Your task to perform on an android device: change notification settings in the gmail app Image 0: 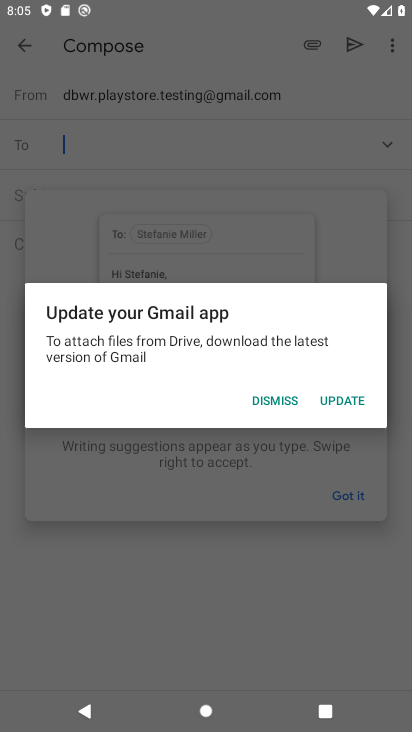
Step 0: press home button
Your task to perform on an android device: change notification settings in the gmail app Image 1: 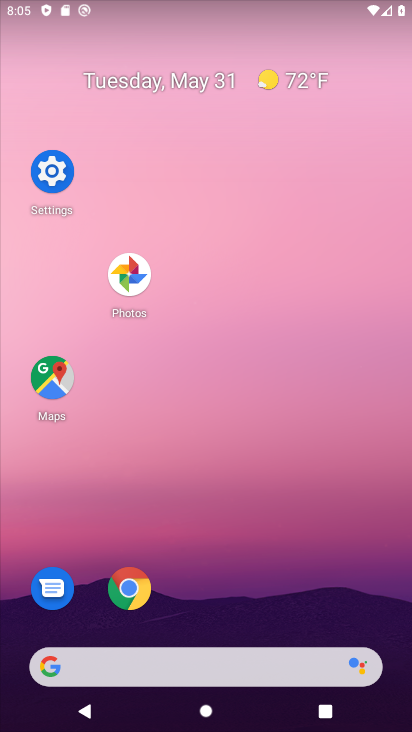
Step 1: drag from (327, 541) to (344, 177)
Your task to perform on an android device: change notification settings in the gmail app Image 2: 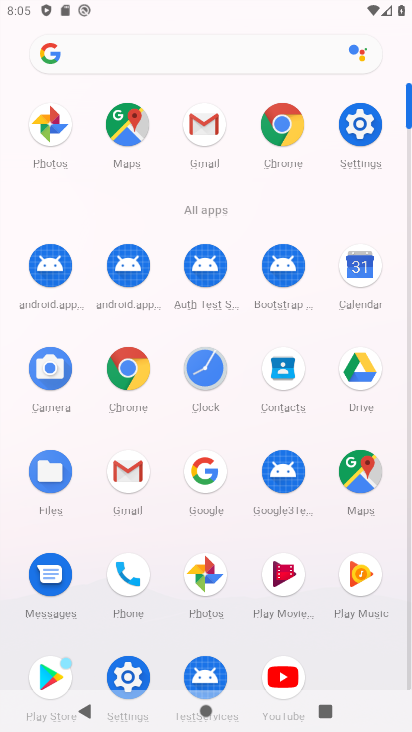
Step 2: drag from (203, 123) to (51, 303)
Your task to perform on an android device: change notification settings in the gmail app Image 3: 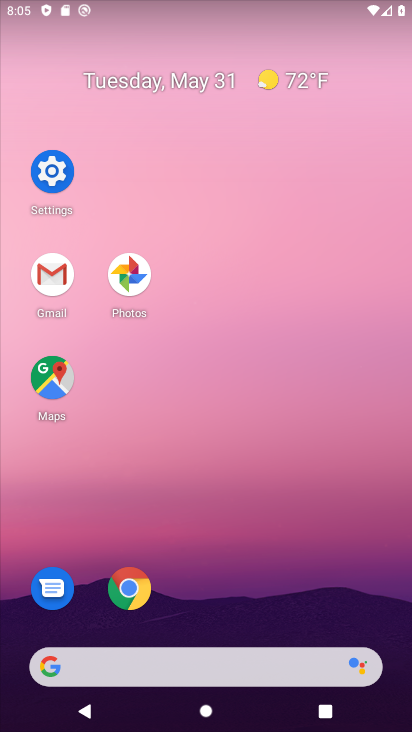
Step 3: click (61, 279)
Your task to perform on an android device: change notification settings in the gmail app Image 4: 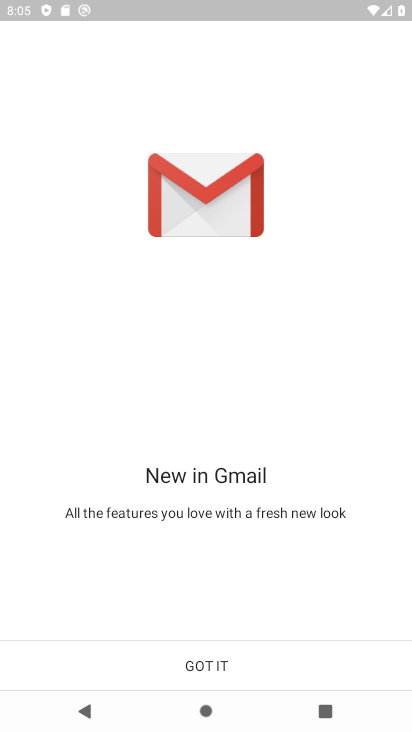
Step 4: click (207, 651)
Your task to perform on an android device: change notification settings in the gmail app Image 5: 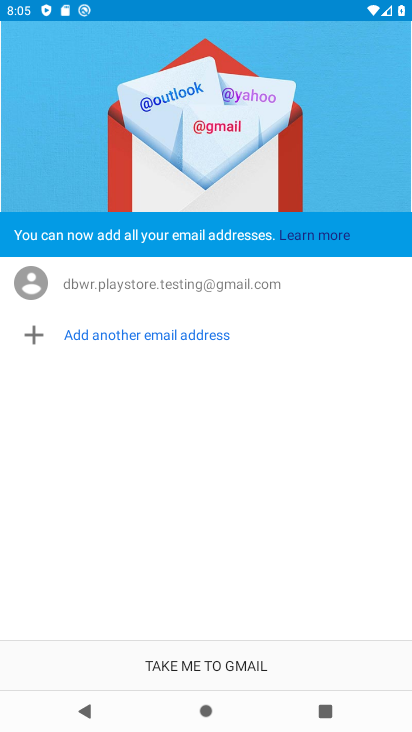
Step 5: click (270, 651)
Your task to perform on an android device: change notification settings in the gmail app Image 6: 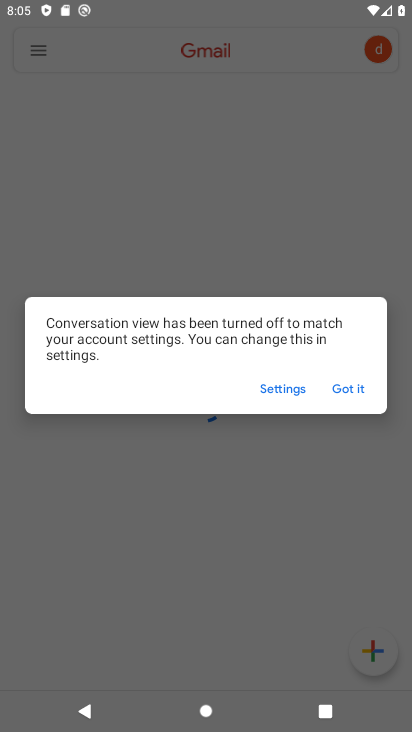
Step 6: click (336, 381)
Your task to perform on an android device: change notification settings in the gmail app Image 7: 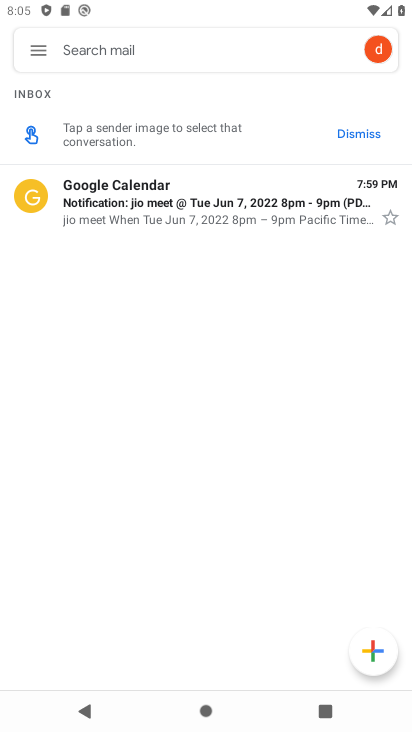
Step 7: click (42, 37)
Your task to perform on an android device: change notification settings in the gmail app Image 8: 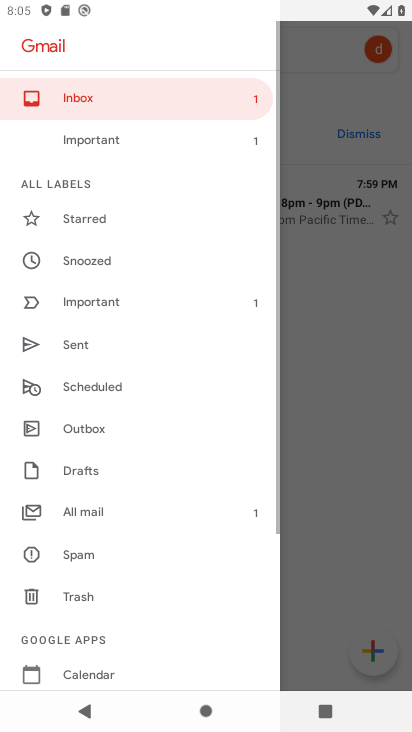
Step 8: drag from (129, 491) to (105, 190)
Your task to perform on an android device: change notification settings in the gmail app Image 9: 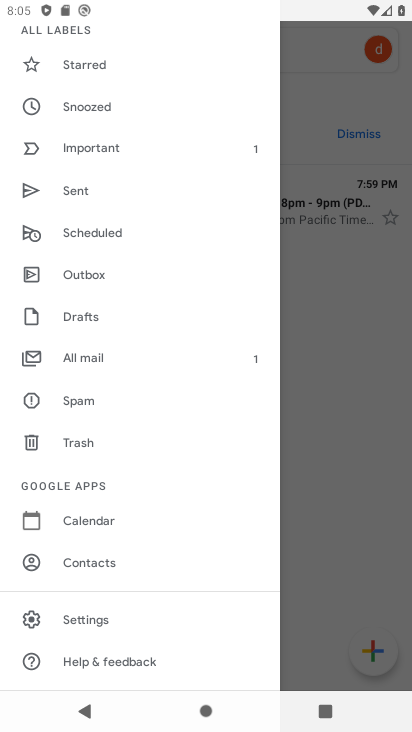
Step 9: click (119, 607)
Your task to perform on an android device: change notification settings in the gmail app Image 10: 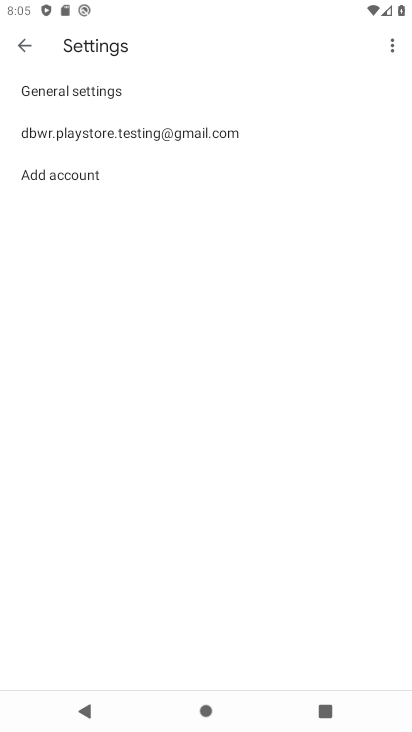
Step 10: click (125, 140)
Your task to perform on an android device: change notification settings in the gmail app Image 11: 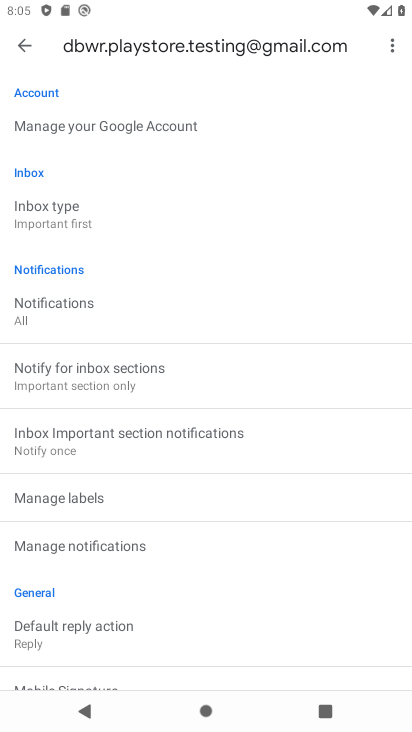
Step 11: click (87, 306)
Your task to perform on an android device: change notification settings in the gmail app Image 12: 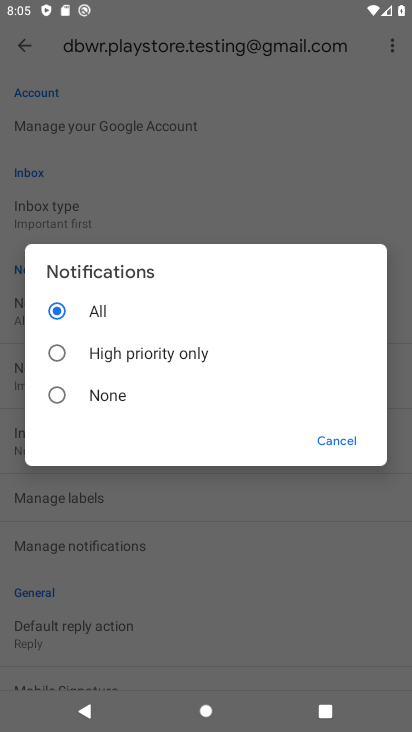
Step 12: click (117, 355)
Your task to perform on an android device: change notification settings in the gmail app Image 13: 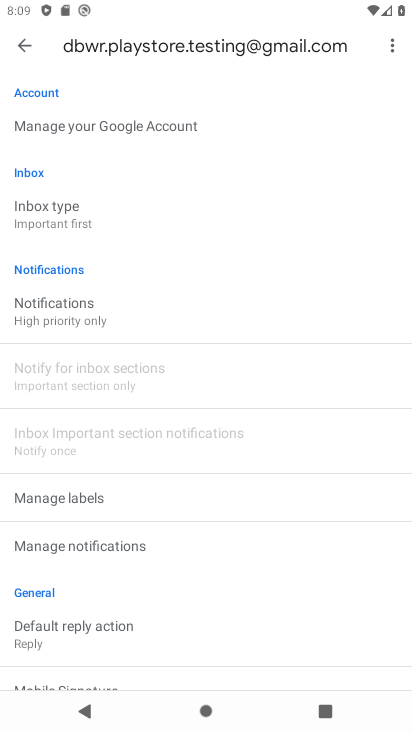
Step 13: task complete